Your task to perform on an android device: turn off sleep mode Image 0: 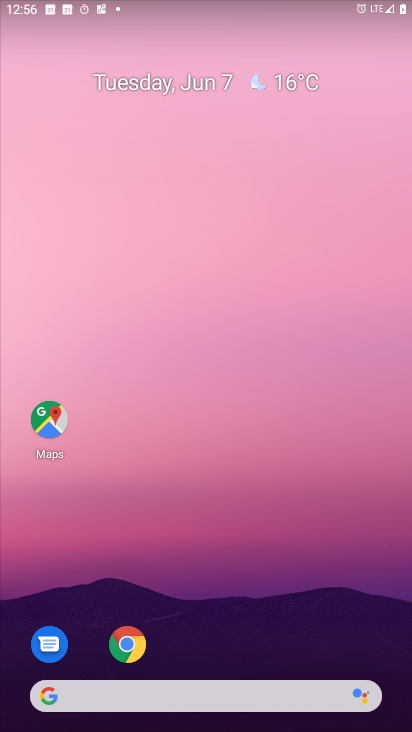
Step 0: drag from (71, 459) to (231, 155)
Your task to perform on an android device: turn off sleep mode Image 1: 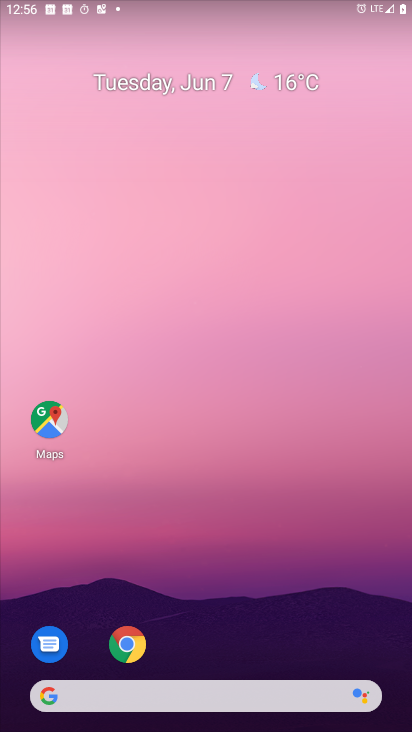
Step 1: drag from (42, 528) to (326, 23)
Your task to perform on an android device: turn off sleep mode Image 2: 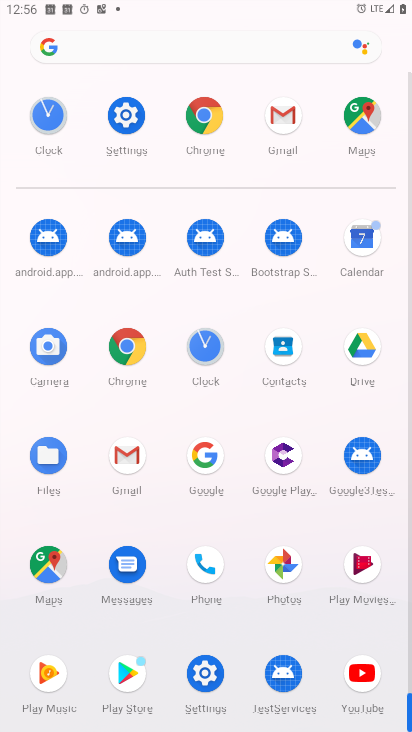
Step 2: click (130, 123)
Your task to perform on an android device: turn off sleep mode Image 3: 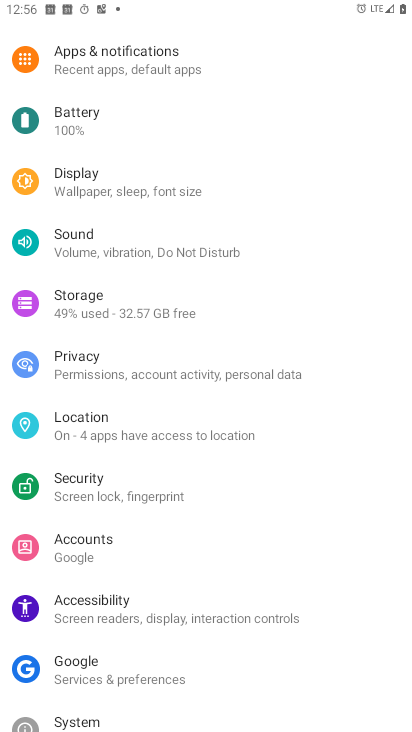
Step 3: click (164, 196)
Your task to perform on an android device: turn off sleep mode Image 4: 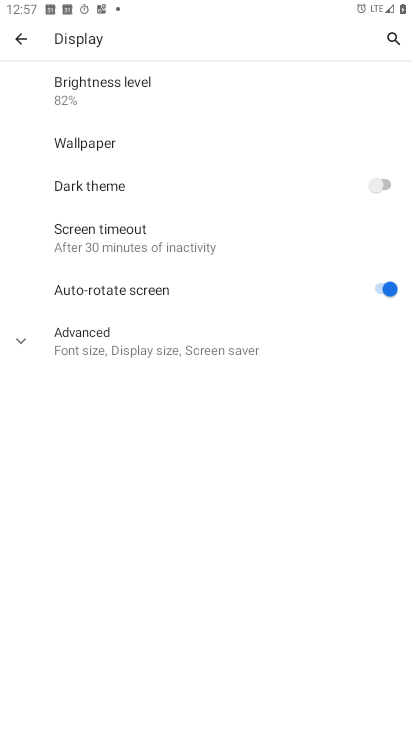
Step 4: task complete